Your task to perform on an android device: Go to display settings Image 0: 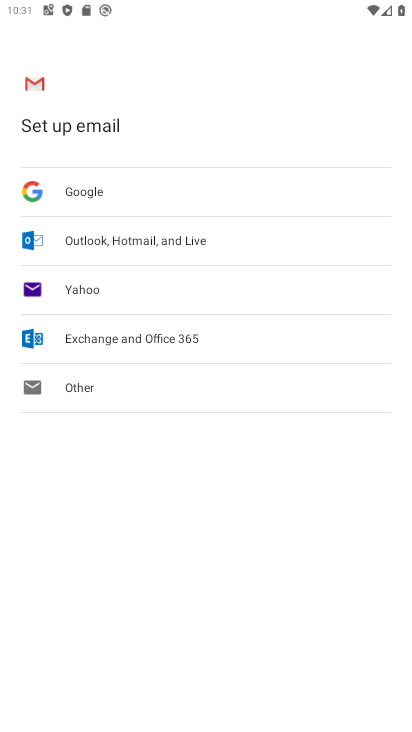
Step 0: press home button
Your task to perform on an android device: Go to display settings Image 1: 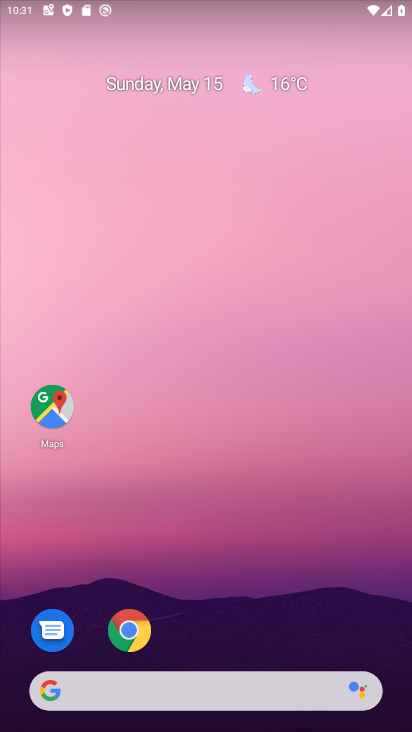
Step 1: drag from (245, 626) to (236, 80)
Your task to perform on an android device: Go to display settings Image 2: 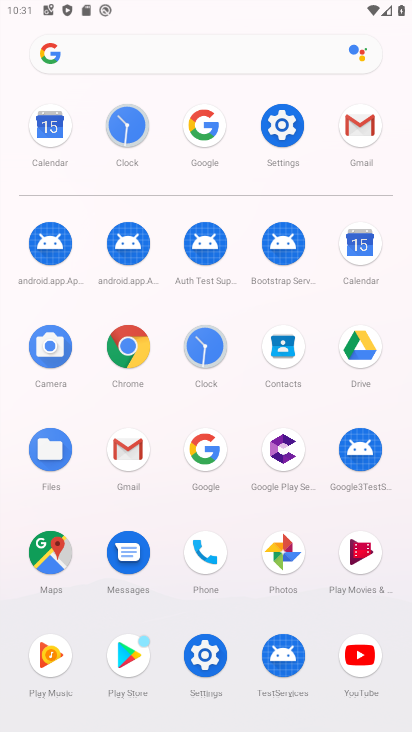
Step 2: click (280, 121)
Your task to perform on an android device: Go to display settings Image 3: 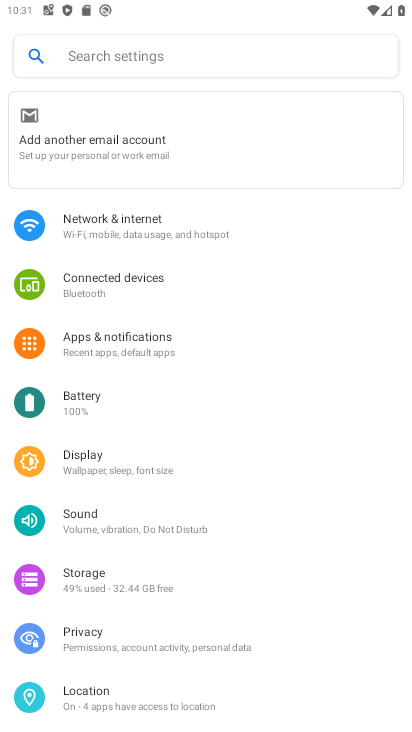
Step 3: click (99, 454)
Your task to perform on an android device: Go to display settings Image 4: 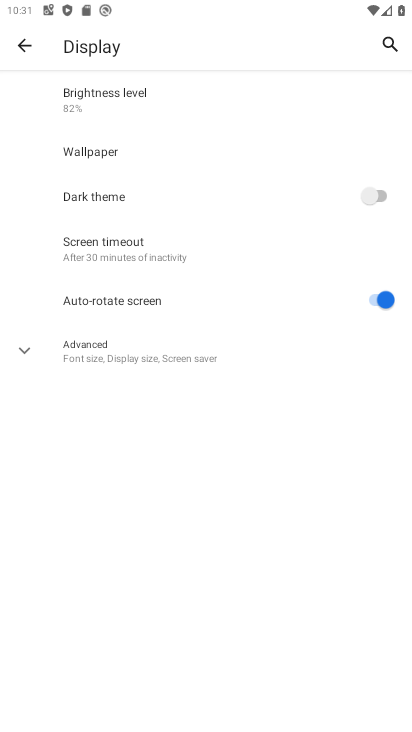
Step 4: task complete